Your task to perform on an android device: allow cookies in the chrome app Image 0: 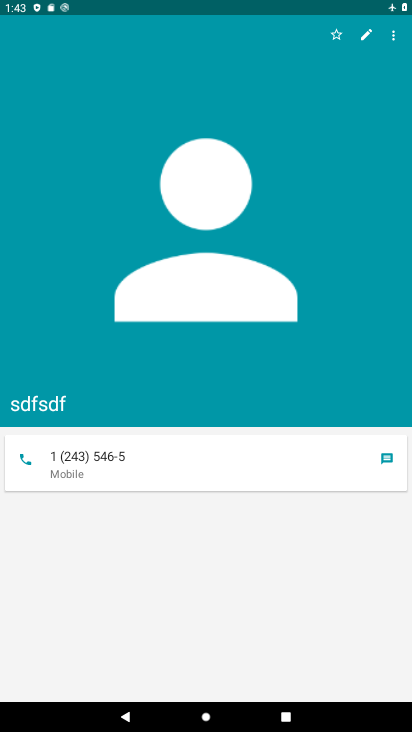
Step 0: press home button
Your task to perform on an android device: allow cookies in the chrome app Image 1: 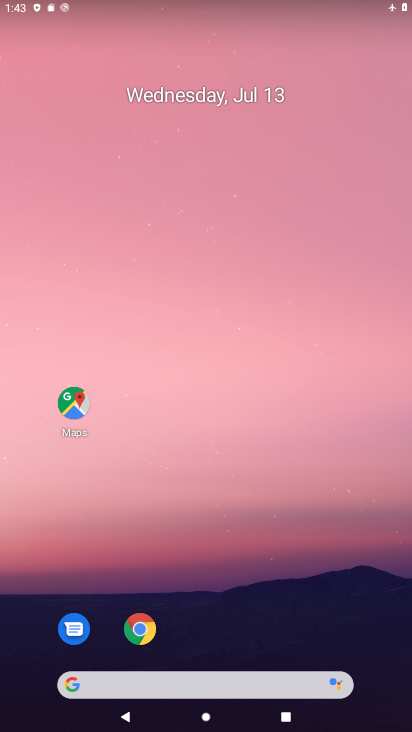
Step 1: click (150, 648)
Your task to perform on an android device: allow cookies in the chrome app Image 2: 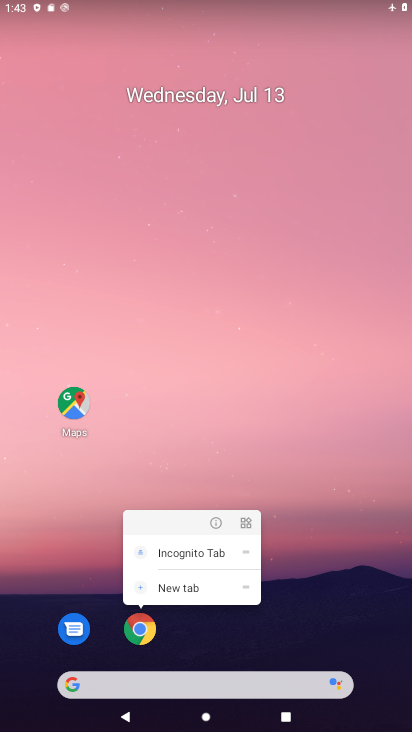
Step 2: click (123, 623)
Your task to perform on an android device: allow cookies in the chrome app Image 3: 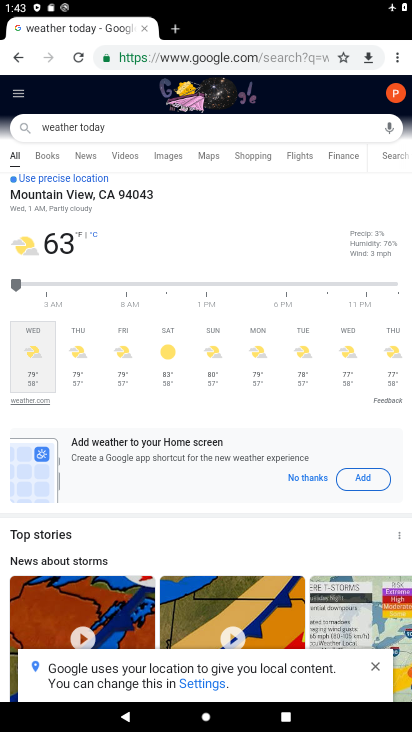
Step 3: drag from (395, 59) to (300, 348)
Your task to perform on an android device: allow cookies in the chrome app Image 4: 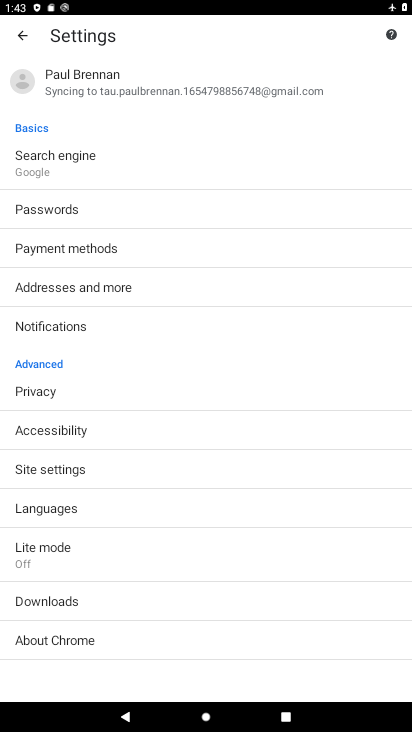
Step 4: click (81, 468)
Your task to perform on an android device: allow cookies in the chrome app Image 5: 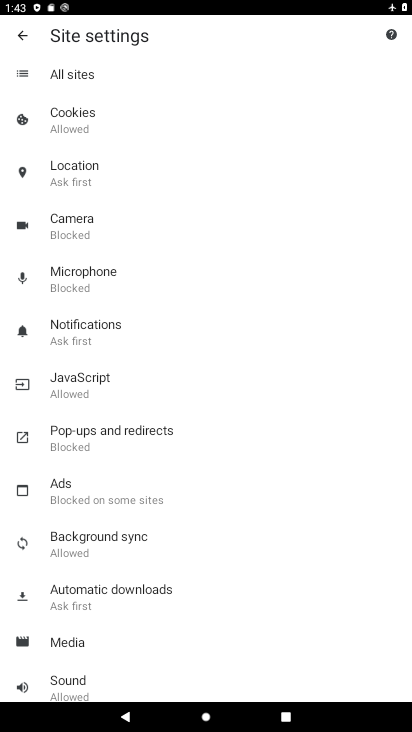
Step 5: click (69, 131)
Your task to perform on an android device: allow cookies in the chrome app Image 6: 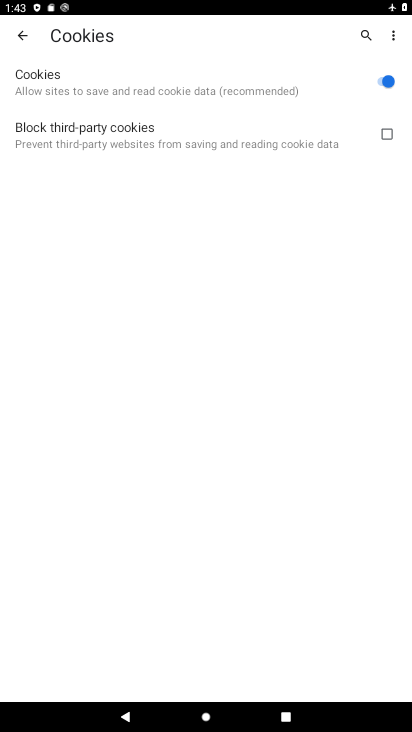
Step 6: task complete